Your task to perform on an android device: Open the calendar app, open the side menu, and click the "Day" option Image 0: 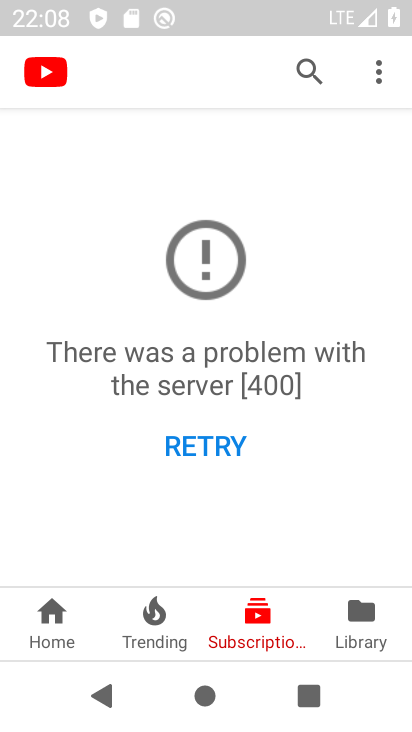
Step 0: press home button
Your task to perform on an android device: Open the calendar app, open the side menu, and click the "Day" option Image 1: 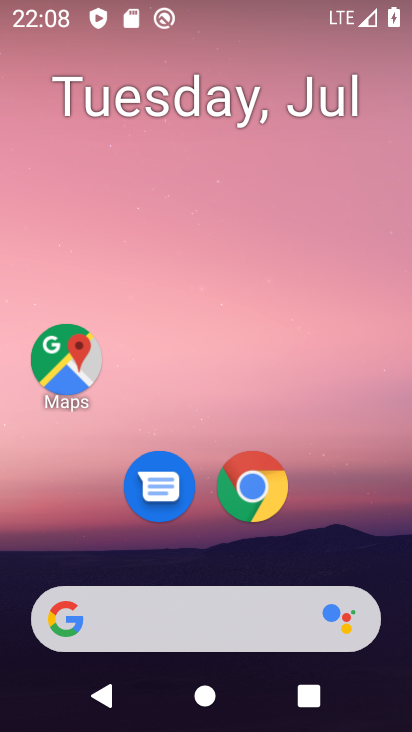
Step 1: drag from (375, 541) to (365, 179)
Your task to perform on an android device: Open the calendar app, open the side menu, and click the "Day" option Image 2: 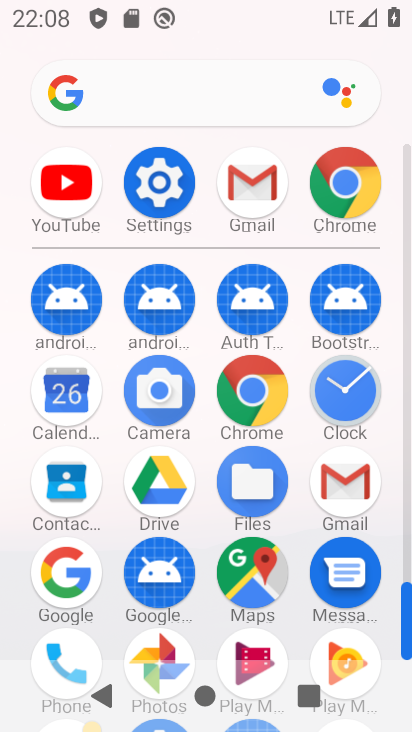
Step 2: click (73, 401)
Your task to perform on an android device: Open the calendar app, open the side menu, and click the "Day" option Image 3: 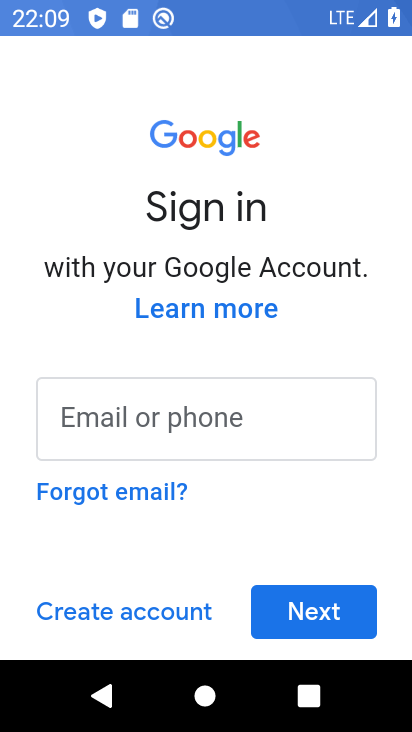
Step 3: task complete